Your task to perform on an android device: What's the weather? Image 0: 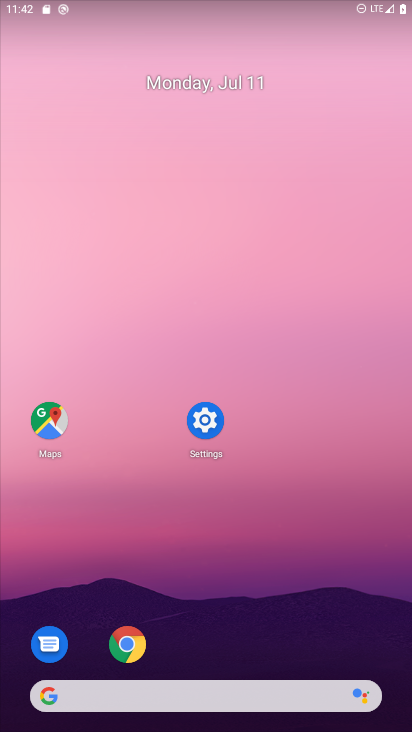
Step 0: drag from (399, 676) to (281, 91)
Your task to perform on an android device: What's the weather? Image 1: 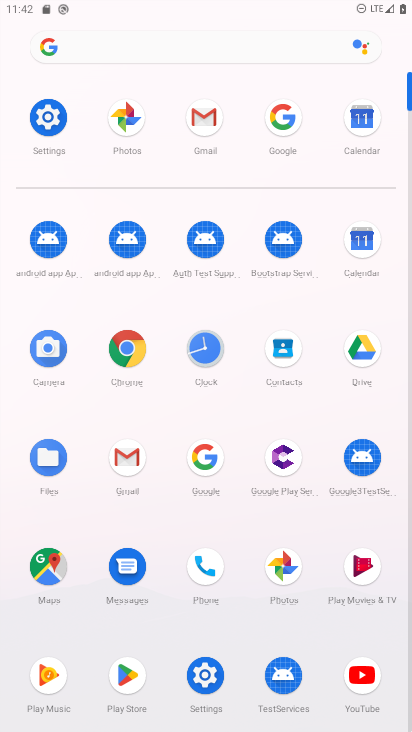
Step 1: click (206, 463)
Your task to perform on an android device: What's the weather? Image 2: 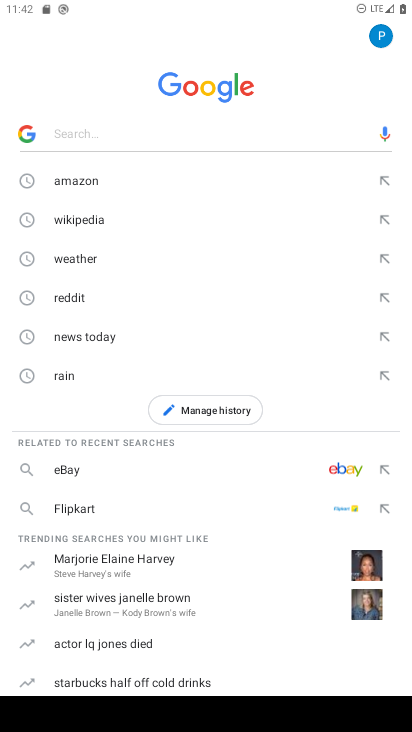
Step 2: press back button
Your task to perform on an android device: What's the weather? Image 3: 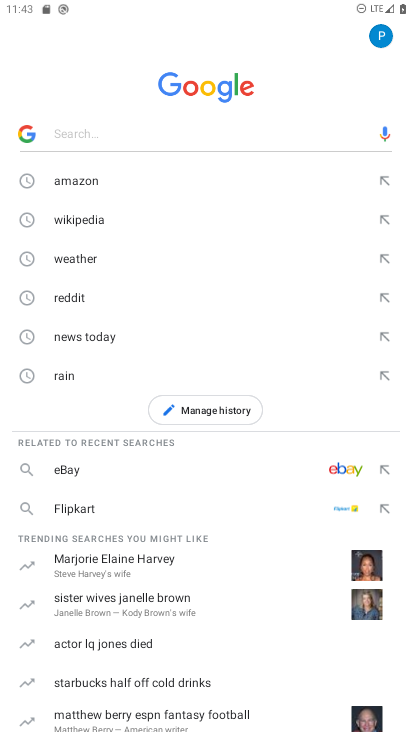
Step 3: press back button
Your task to perform on an android device: What's the weather? Image 4: 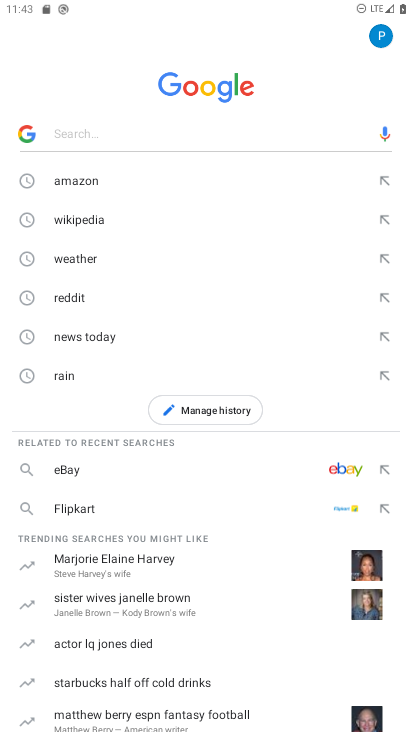
Step 4: press back button
Your task to perform on an android device: What's the weather? Image 5: 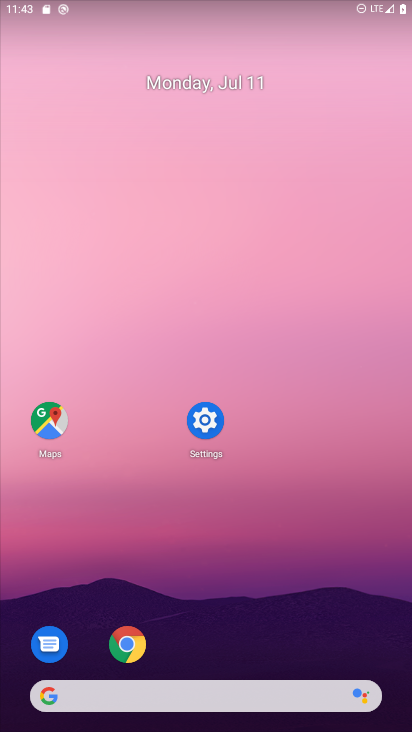
Step 5: drag from (0, 143) to (382, 78)
Your task to perform on an android device: What's the weather? Image 6: 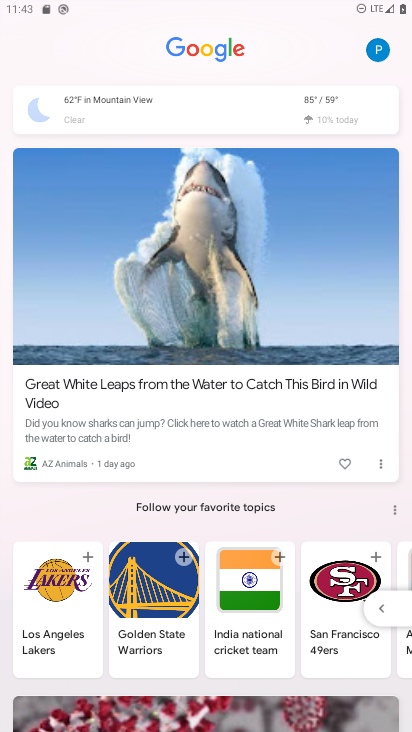
Step 6: click (318, 92)
Your task to perform on an android device: What's the weather? Image 7: 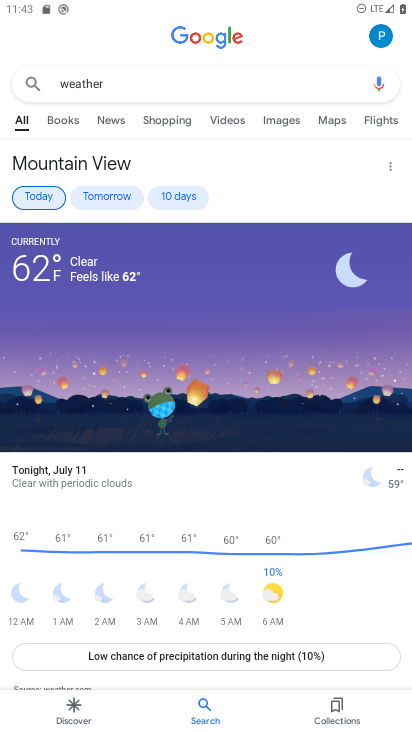
Step 7: task complete